Your task to perform on an android device: add a contact in the contacts app Image 0: 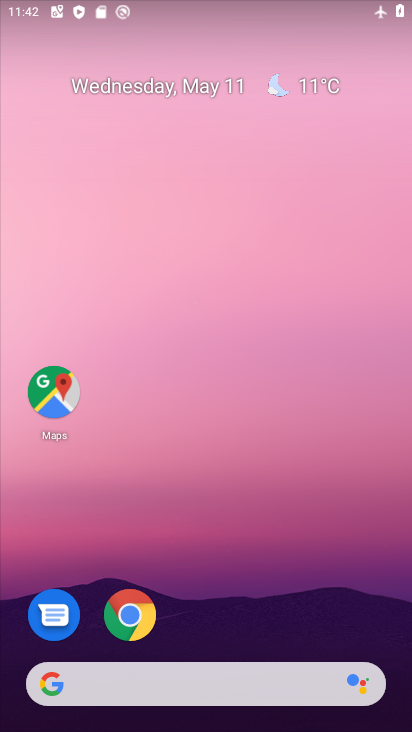
Step 0: drag from (254, 594) to (318, 106)
Your task to perform on an android device: add a contact in the contacts app Image 1: 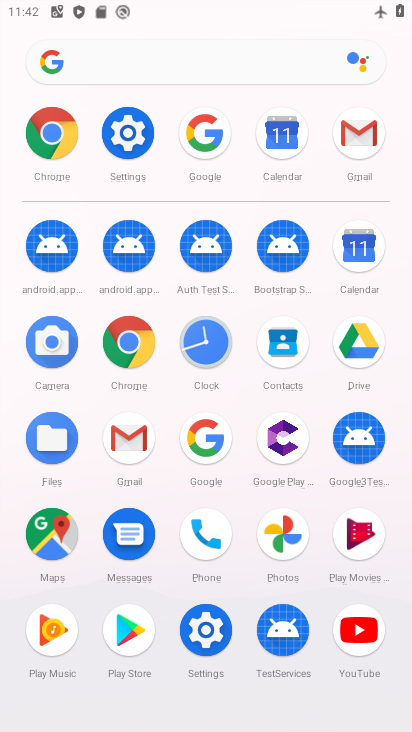
Step 1: click (281, 332)
Your task to perform on an android device: add a contact in the contacts app Image 2: 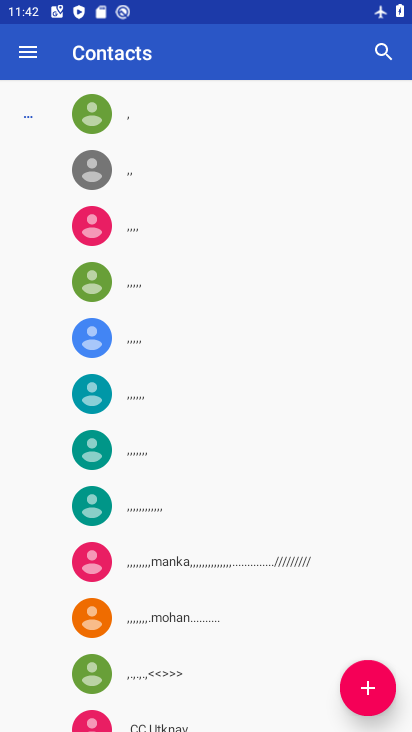
Step 2: click (367, 680)
Your task to perform on an android device: add a contact in the contacts app Image 3: 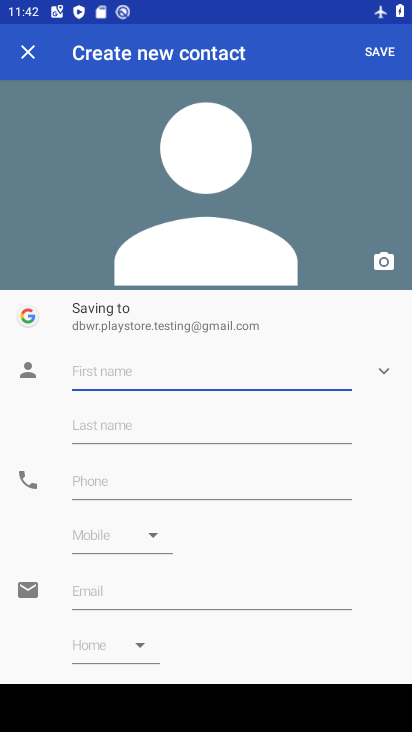
Step 3: type "jim"
Your task to perform on an android device: add a contact in the contacts app Image 4: 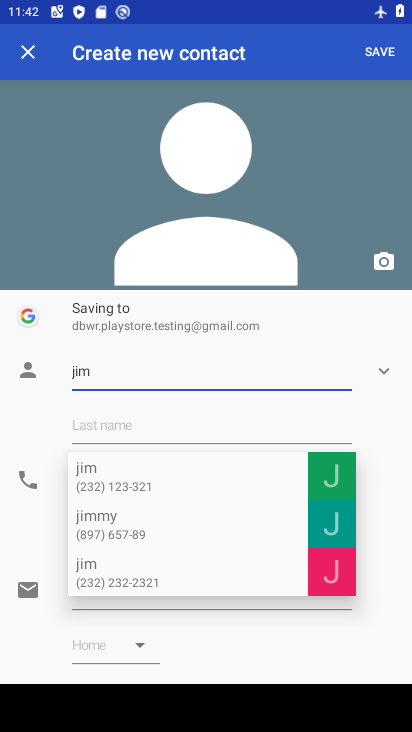
Step 4: type "y"
Your task to perform on an android device: add a contact in the contacts app Image 5: 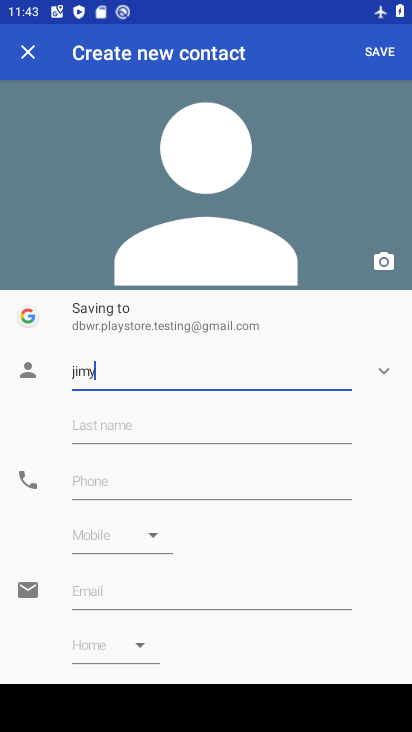
Step 5: click (375, 44)
Your task to perform on an android device: add a contact in the contacts app Image 6: 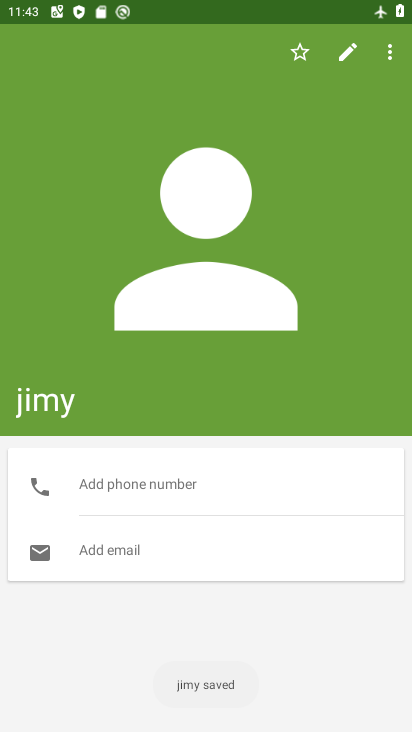
Step 6: task complete